Your task to perform on an android device: Add razer huntsman to the cart on amazon.com, then select checkout. Image 0: 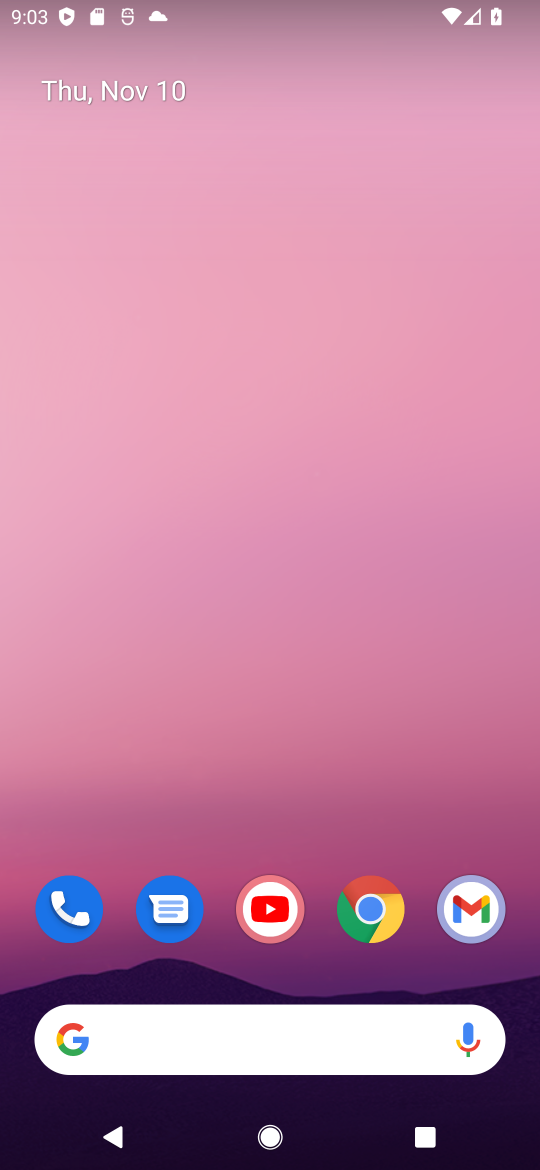
Step 0: drag from (300, 1077) to (343, 339)
Your task to perform on an android device: Add razer huntsman to the cart on amazon.com, then select checkout. Image 1: 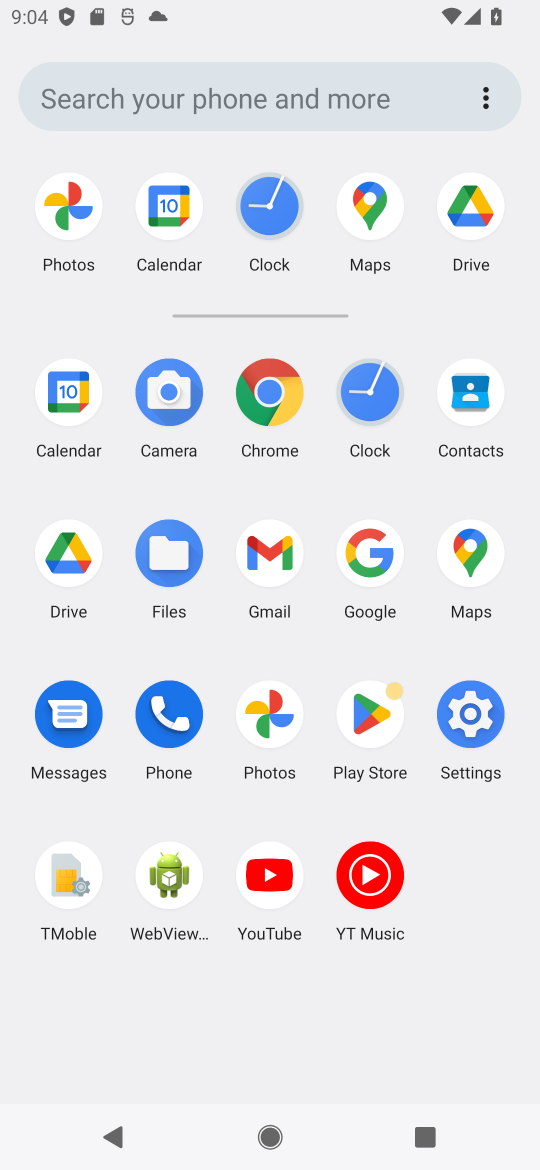
Step 1: click (381, 548)
Your task to perform on an android device: Add razer huntsman to the cart on amazon.com, then select checkout. Image 2: 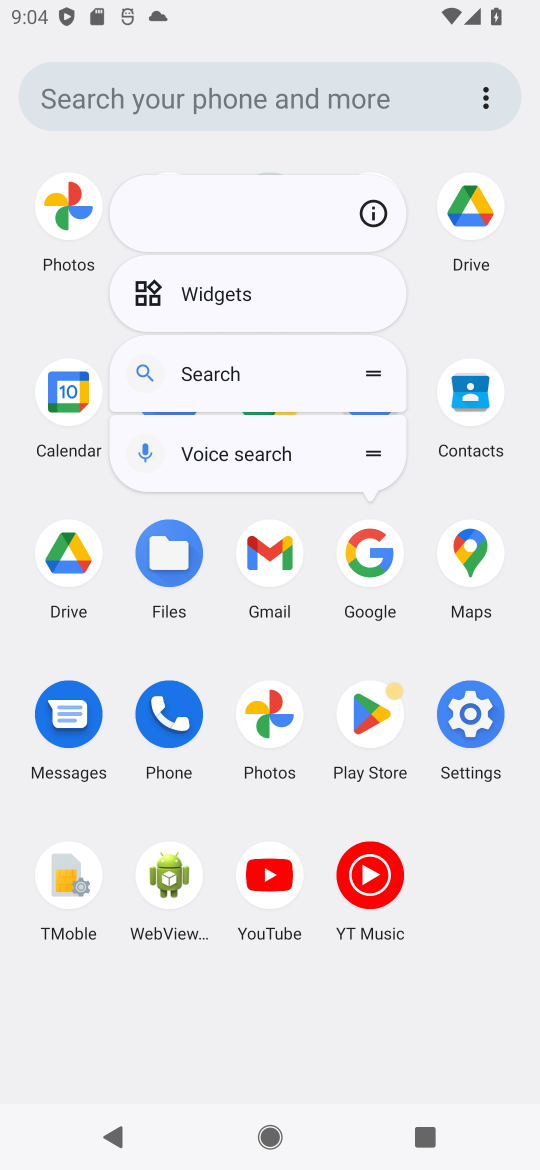
Step 2: click (401, 546)
Your task to perform on an android device: Add razer huntsman to the cart on amazon.com, then select checkout. Image 3: 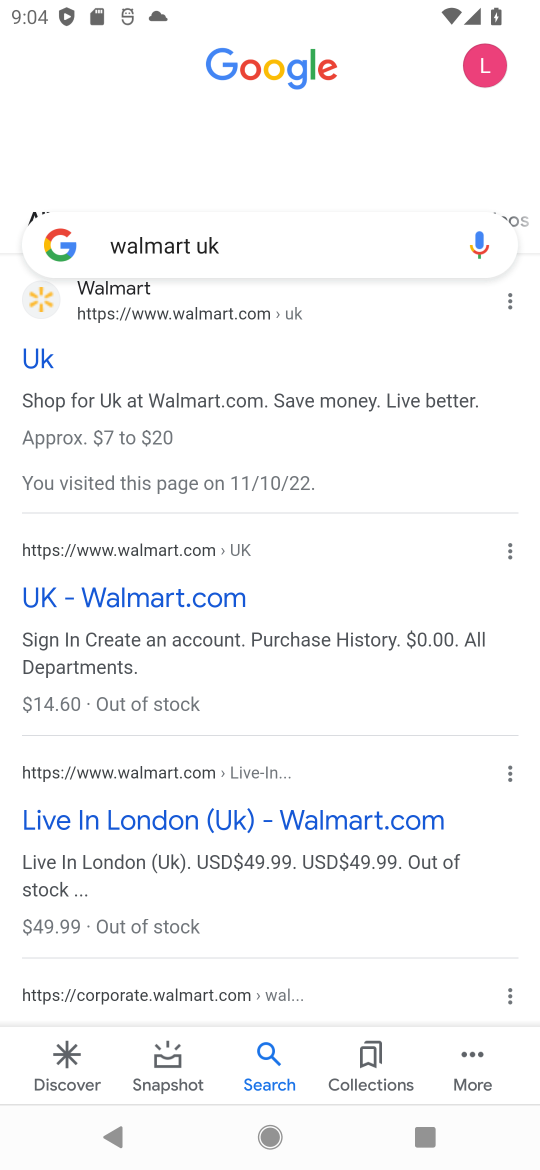
Step 3: click (229, 242)
Your task to perform on an android device: Add razer huntsman to the cart on amazon.com, then select checkout. Image 4: 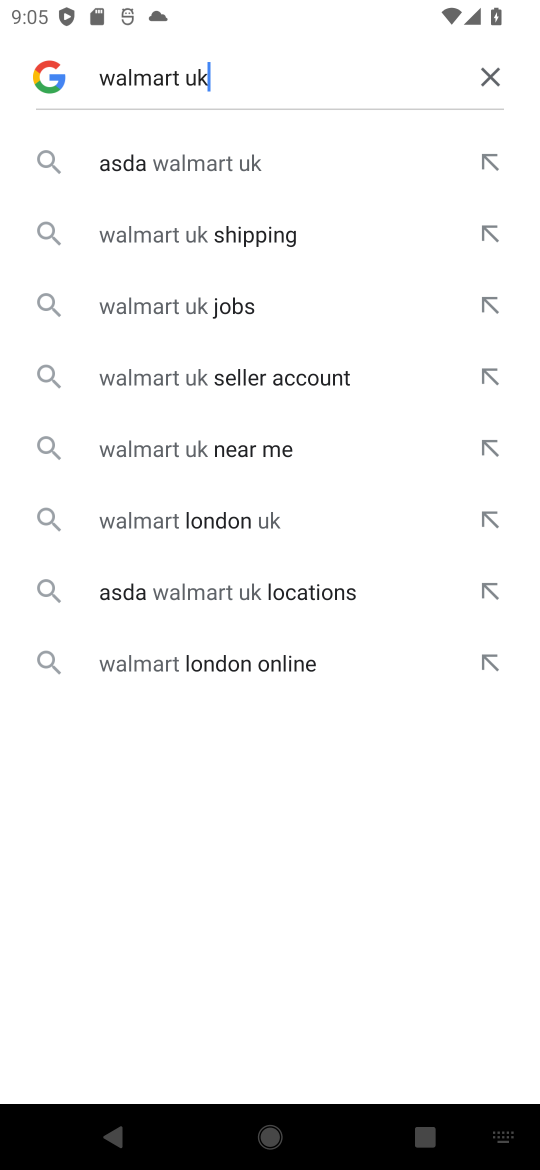
Step 4: click (491, 61)
Your task to perform on an android device: Add razer huntsman to the cart on amazon.com, then select checkout. Image 5: 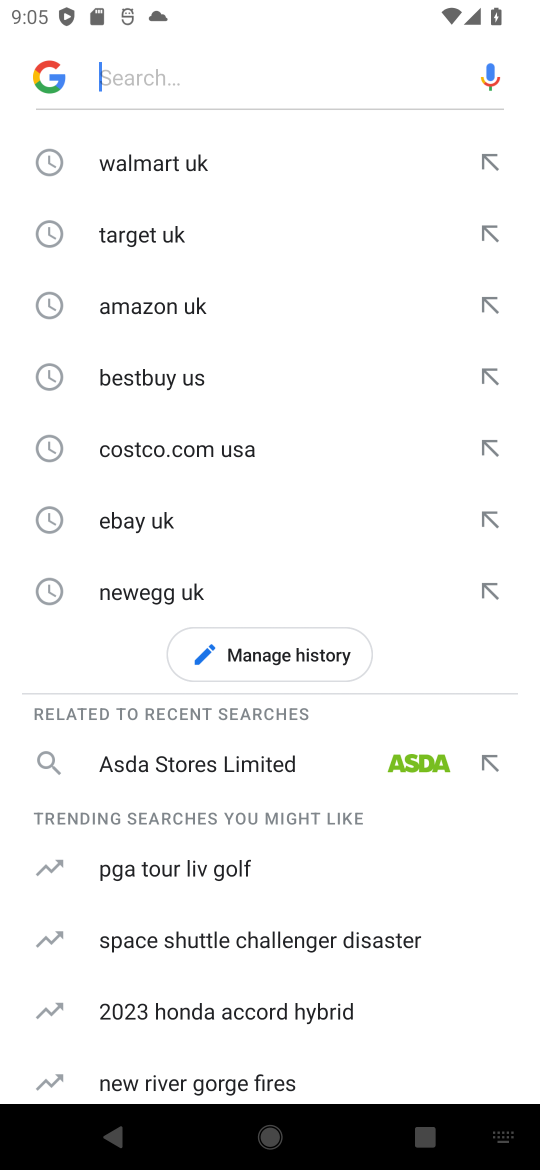
Step 5: click (184, 311)
Your task to perform on an android device: Add razer huntsman to the cart on amazon.com, then select checkout. Image 6: 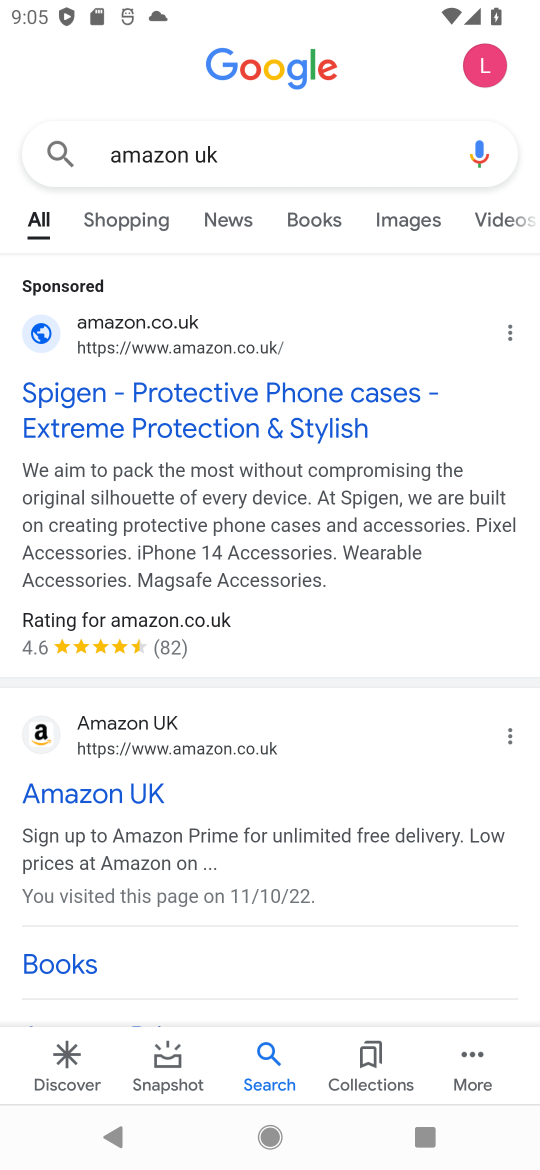
Step 6: click (38, 724)
Your task to perform on an android device: Add razer huntsman to the cart on amazon.com, then select checkout. Image 7: 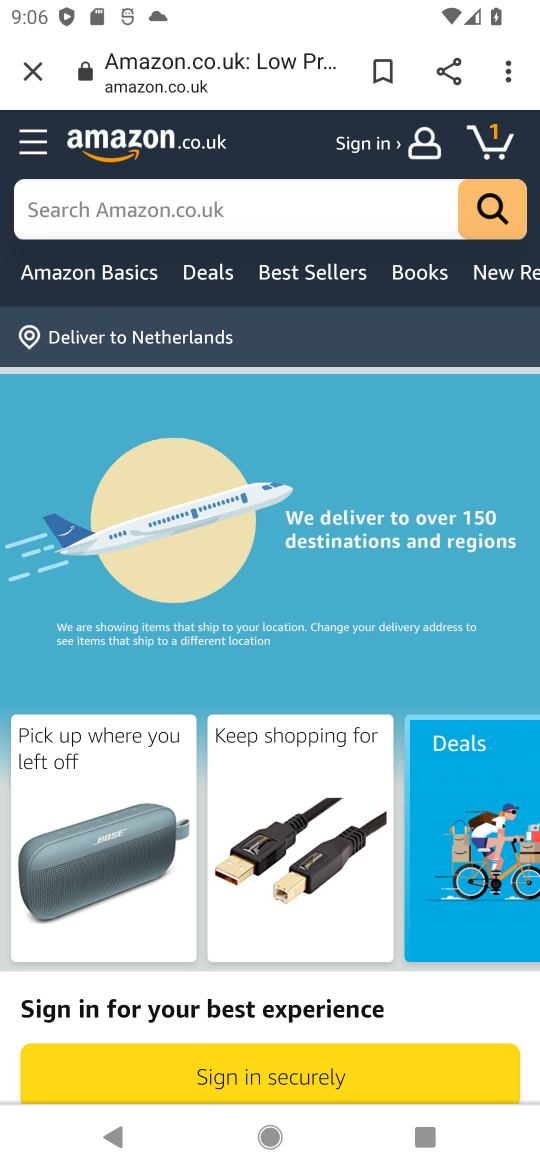
Step 7: click (243, 189)
Your task to perform on an android device: Add razer huntsman to the cart on amazon.com, then select checkout. Image 8: 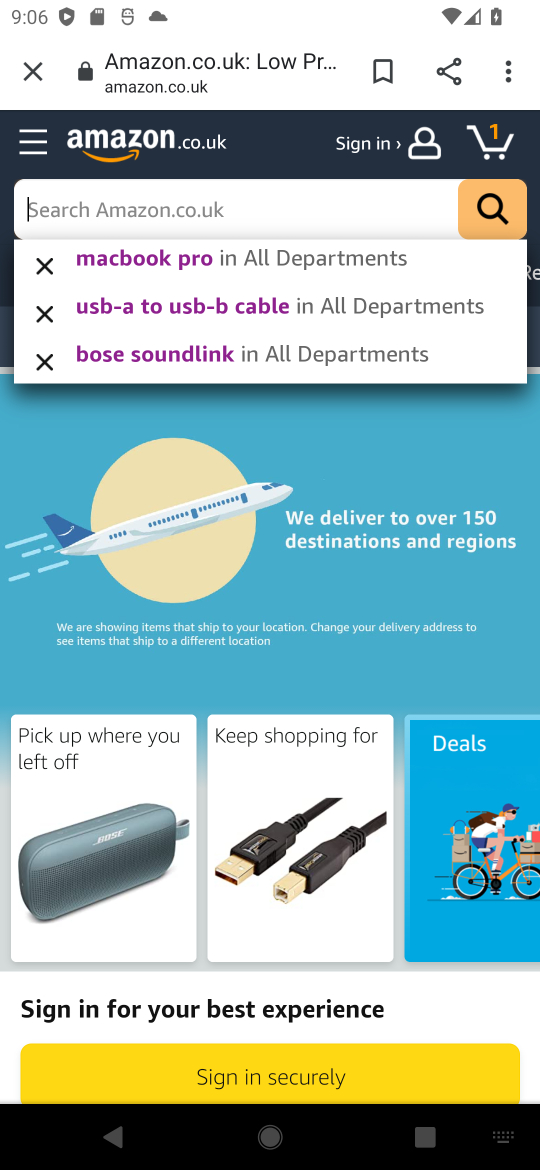
Step 8: type "razer huntsman  "
Your task to perform on an android device: Add razer huntsman to the cart on amazon.com, then select checkout. Image 9: 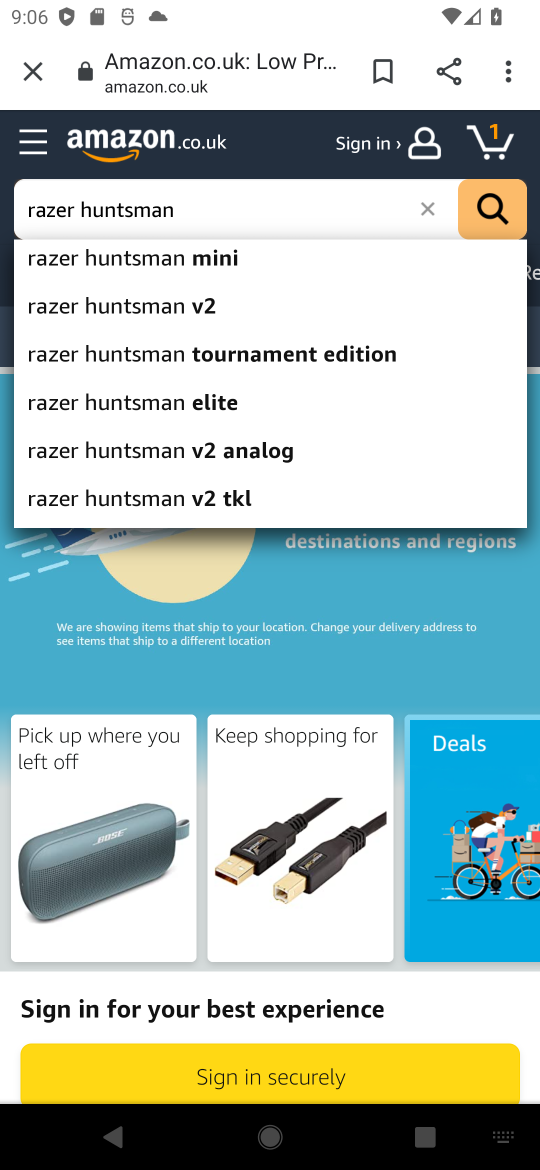
Step 9: click (490, 197)
Your task to perform on an android device: Add razer huntsman to the cart on amazon.com, then select checkout. Image 10: 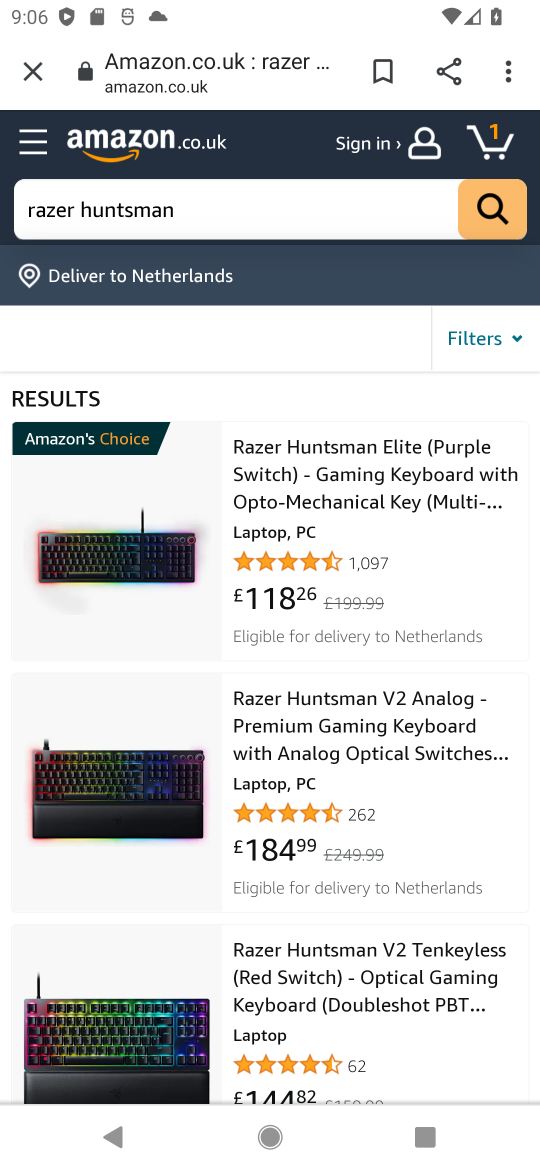
Step 10: click (331, 467)
Your task to perform on an android device: Add razer huntsman to the cart on amazon.com, then select checkout. Image 11: 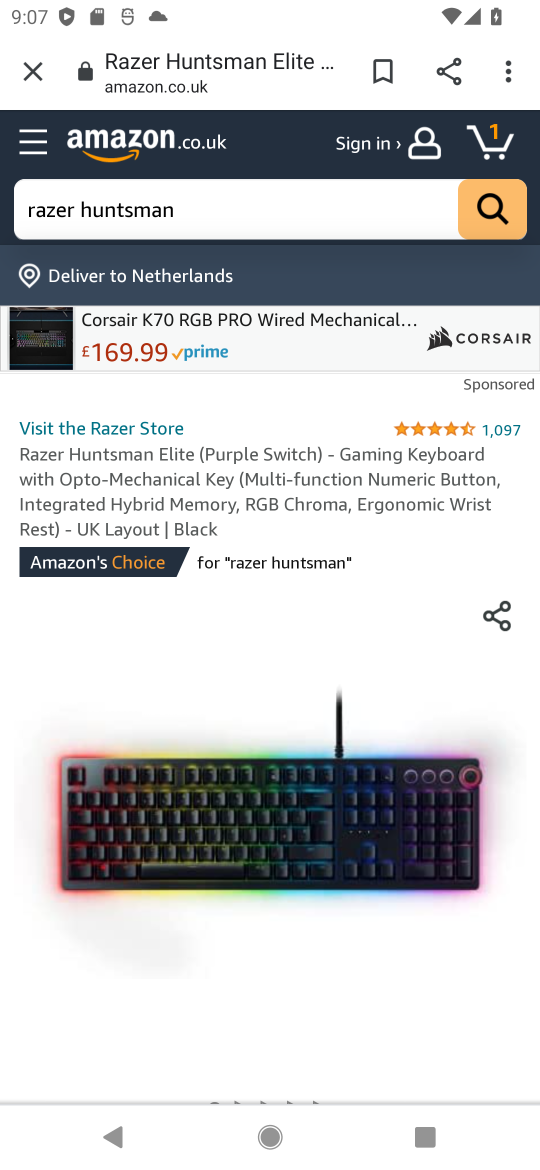
Step 11: drag from (221, 879) to (270, 325)
Your task to perform on an android device: Add razer huntsman to the cart on amazon.com, then select checkout. Image 12: 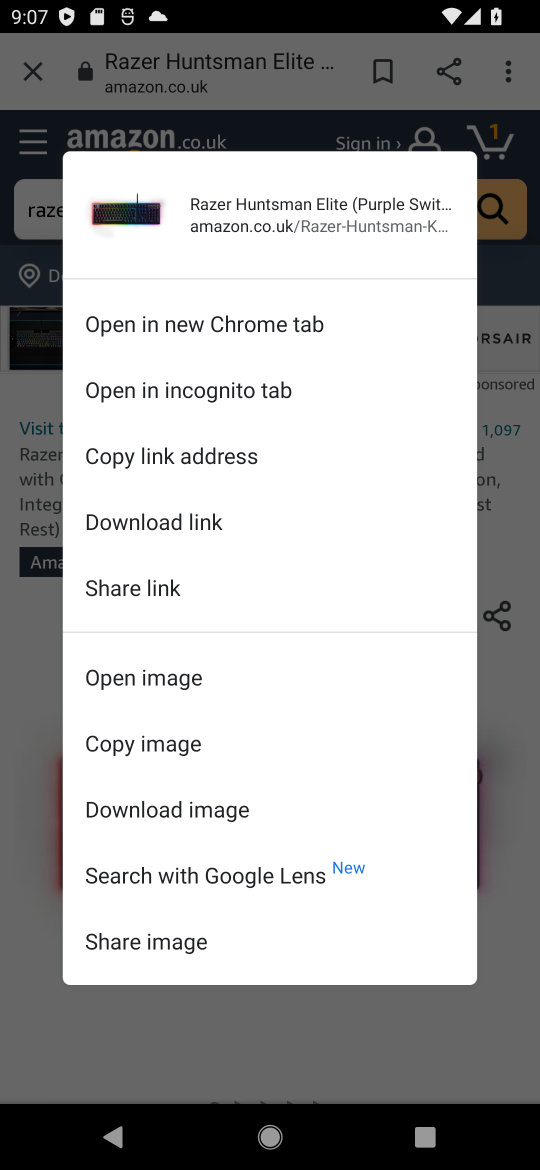
Step 12: click (367, 632)
Your task to perform on an android device: Add razer huntsman to the cart on amazon.com, then select checkout. Image 13: 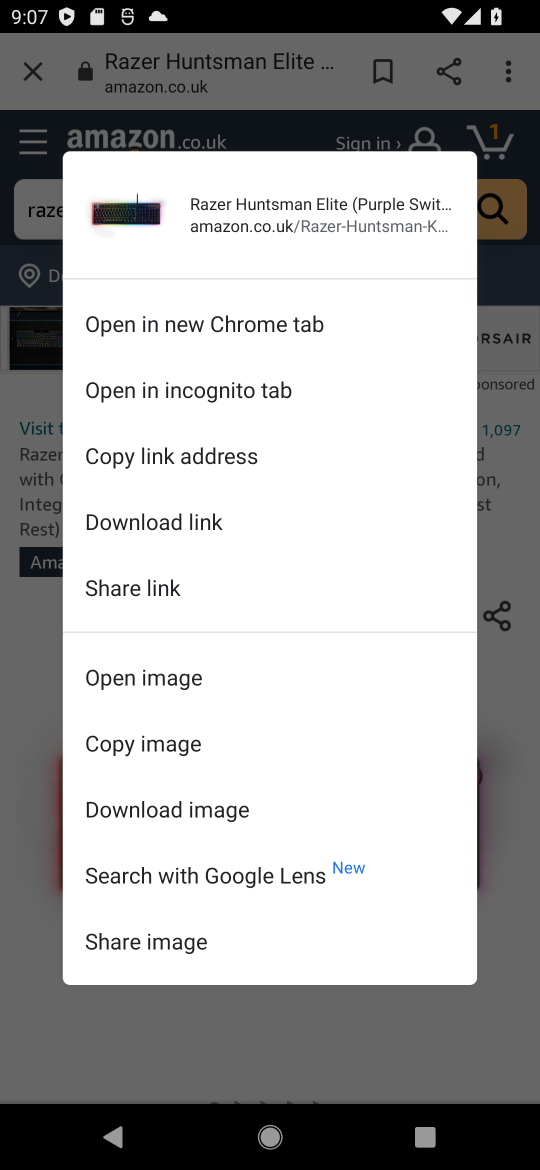
Step 13: click (508, 347)
Your task to perform on an android device: Add razer huntsman to the cart on amazon.com, then select checkout. Image 14: 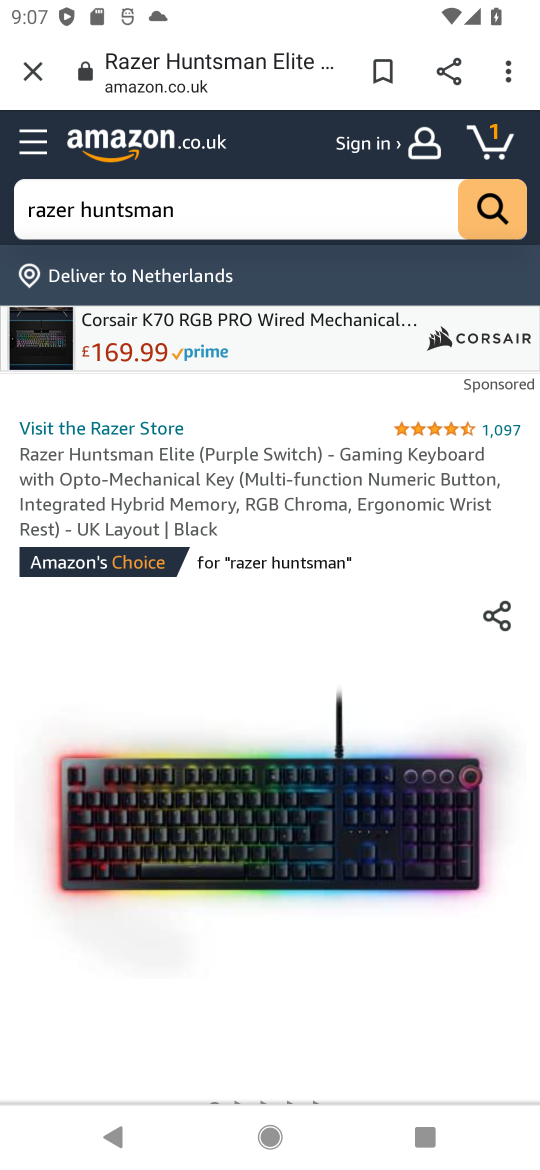
Step 14: drag from (394, 864) to (398, 453)
Your task to perform on an android device: Add razer huntsman to the cart on amazon.com, then select checkout. Image 15: 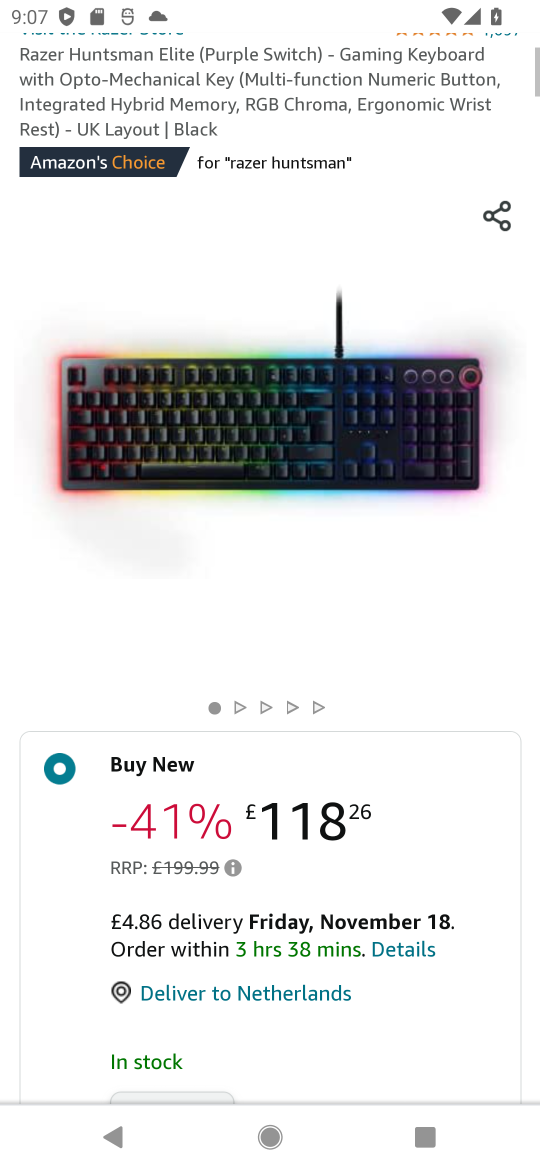
Step 15: drag from (340, 927) to (377, 338)
Your task to perform on an android device: Add razer huntsman to the cart on amazon.com, then select checkout. Image 16: 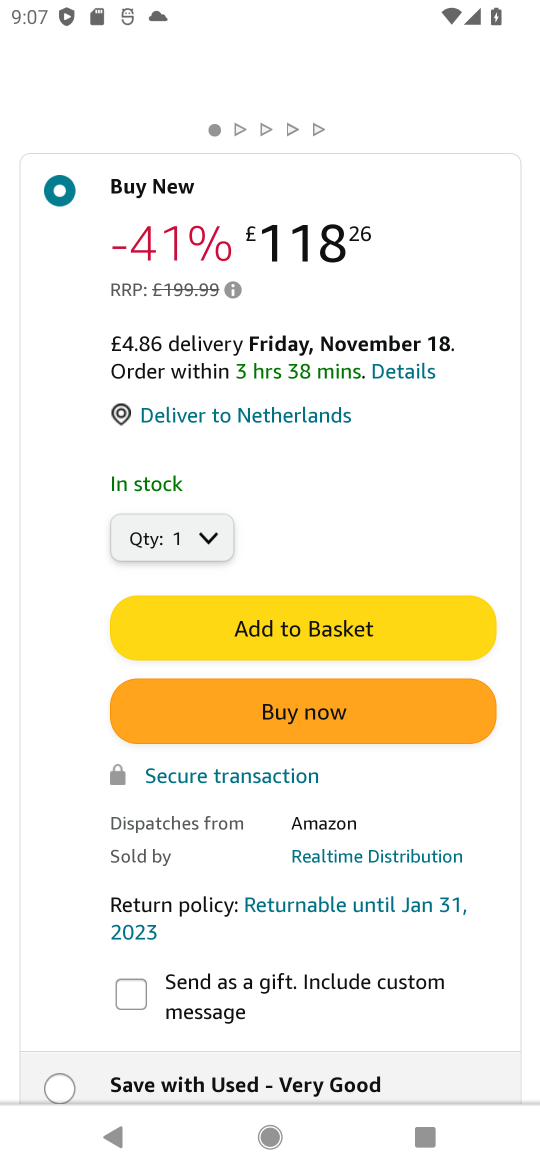
Step 16: click (319, 613)
Your task to perform on an android device: Add razer huntsman to the cart on amazon.com, then select checkout. Image 17: 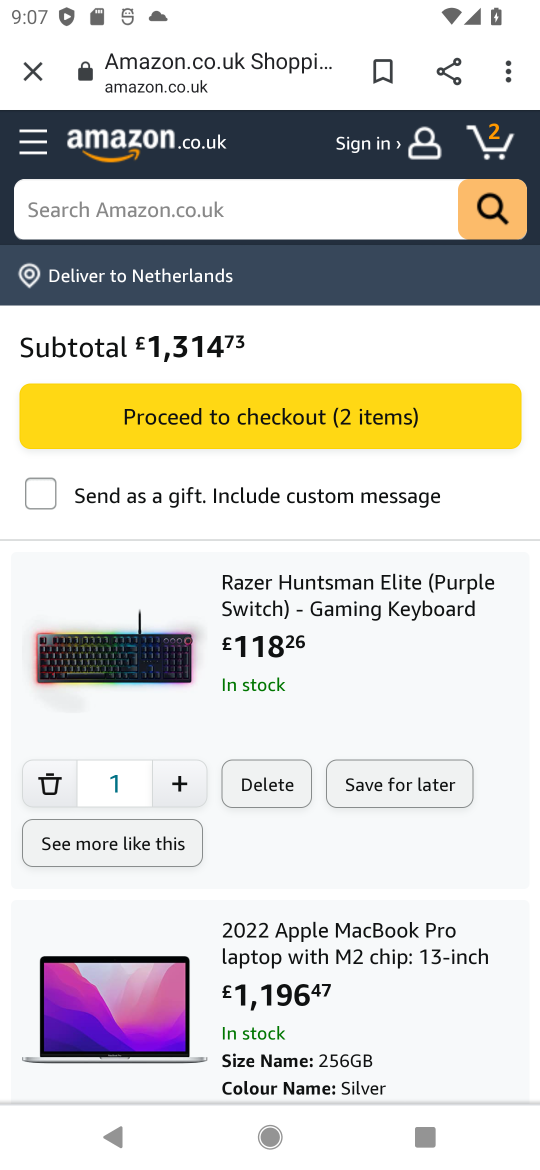
Step 17: task complete